Your task to perform on an android device: Go to Reddit.com Image 0: 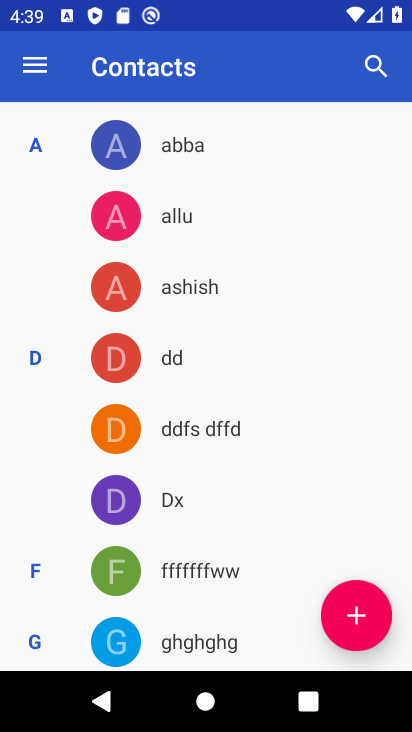
Step 0: press home button
Your task to perform on an android device: Go to Reddit.com Image 1: 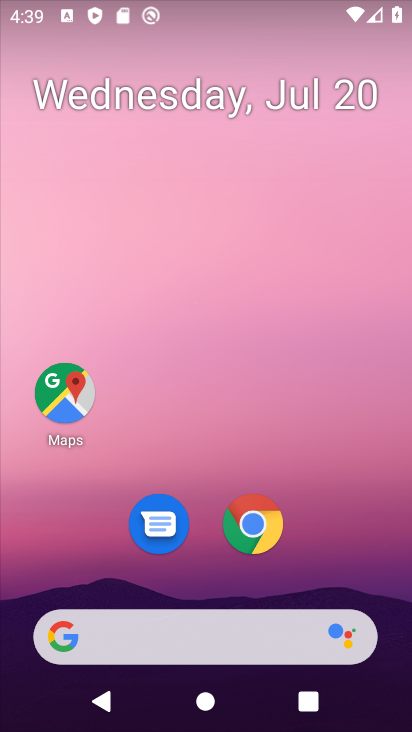
Step 1: click (275, 647)
Your task to perform on an android device: Go to Reddit.com Image 2: 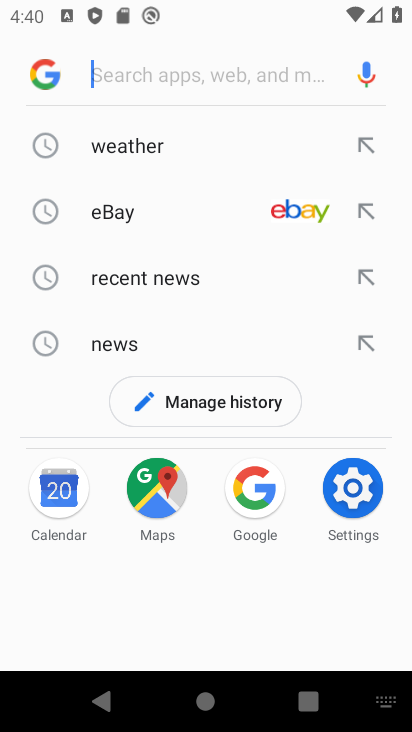
Step 2: type "reddit.com"
Your task to perform on an android device: Go to Reddit.com Image 3: 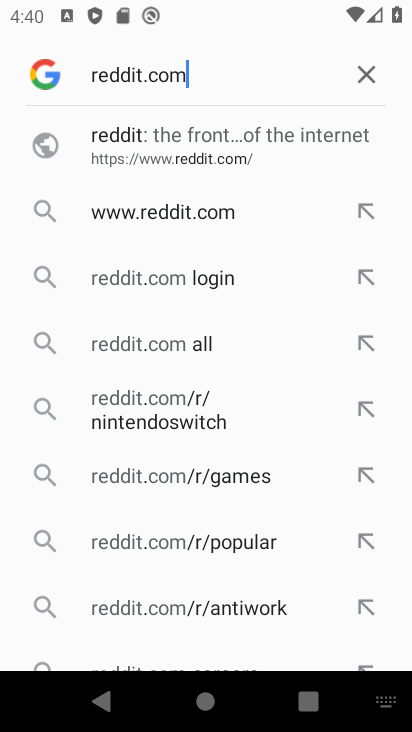
Step 3: click (234, 150)
Your task to perform on an android device: Go to Reddit.com Image 4: 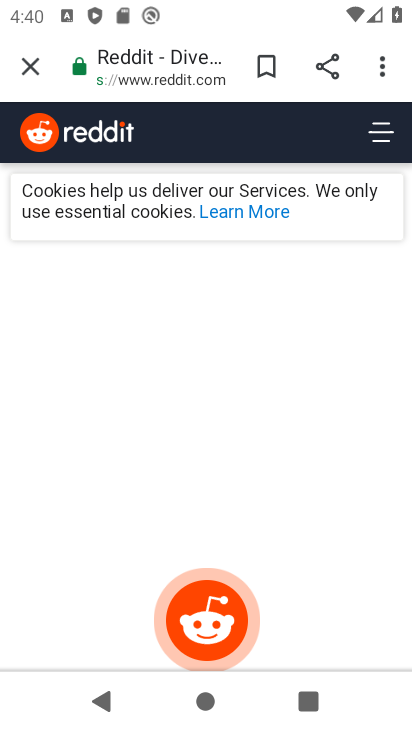
Step 4: drag from (209, 522) to (252, 265)
Your task to perform on an android device: Go to Reddit.com Image 5: 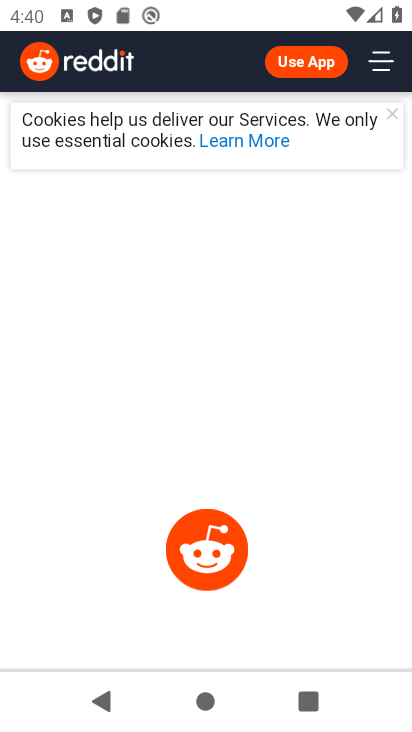
Step 5: click (212, 544)
Your task to perform on an android device: Go to Reddit.com Image 6: 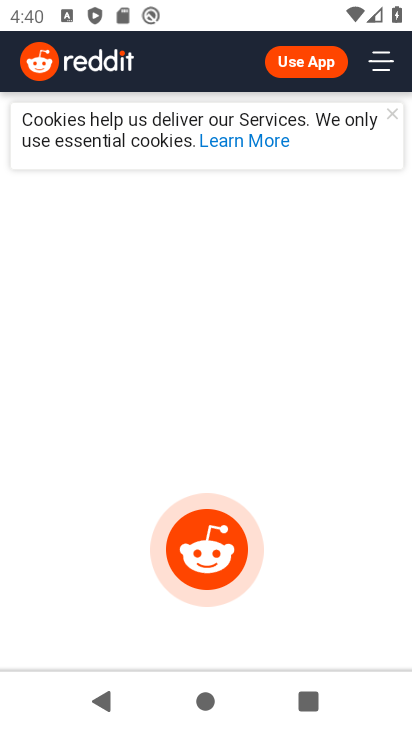
Step 6: task complete